Your task to perform on an android device: turn off location Image 0: 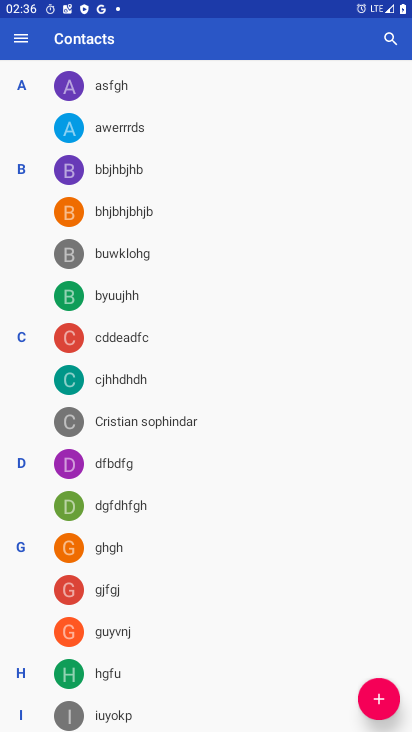
Step 0: press home button
Your task to perform on an android device: turn off location Image 1: 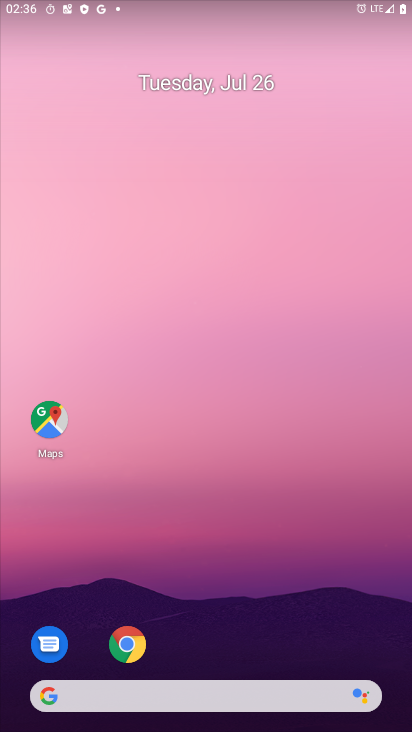
Step 1: drag from (225, 661) to (217, 4)
Your task to perform on an android device: turn off location Image 2: 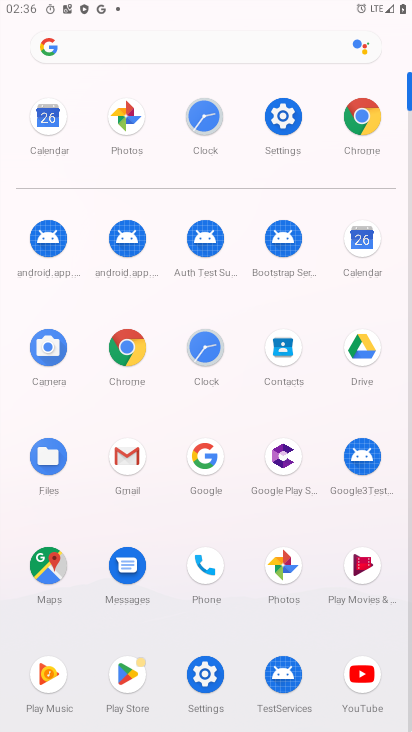
Step 2: click (292, 112)
Your task to perform on an android device: turn off location Image 3: 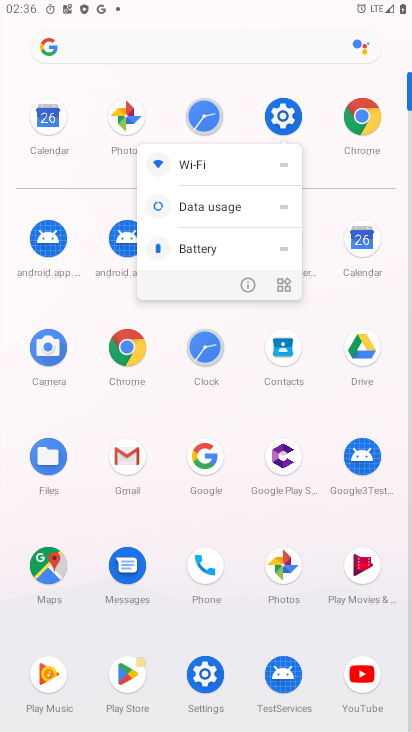
Step 3: click (291, 113)
Your task to perform on an android device: turn off location Image 4: 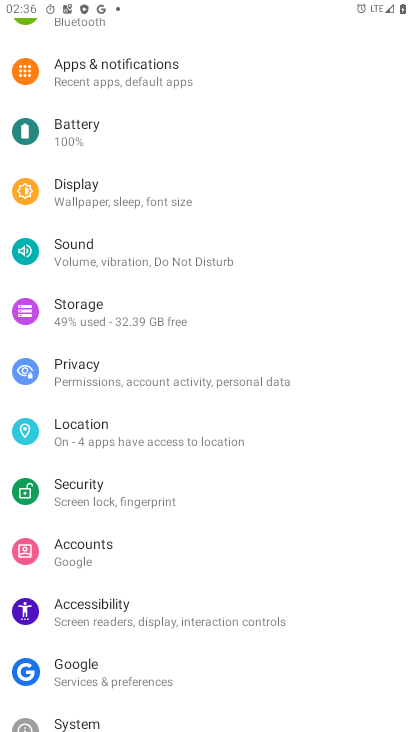
Step 4: click (104, 439)
Your task to perform on an android device: turn off location Image 5: 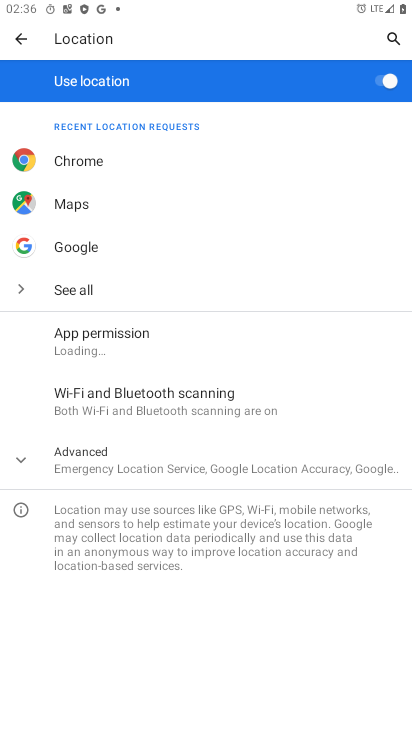
Step 5: click (383, 83)
Your task to perform on an android device: turn off location Image 6: 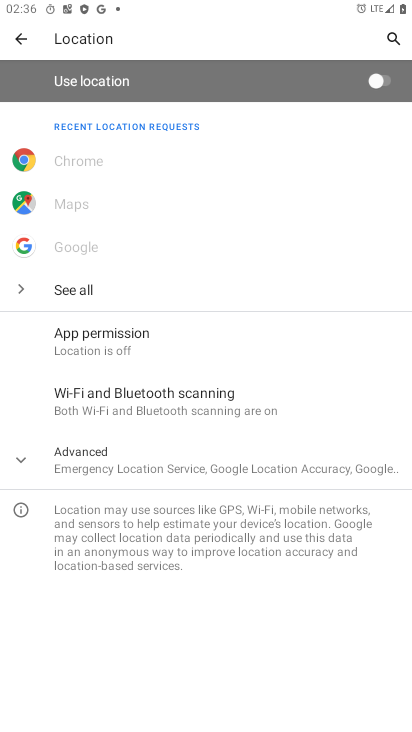
Step 6: task complete